Your task to perform on an android device: Show me popular games on the Play Store Image 0: 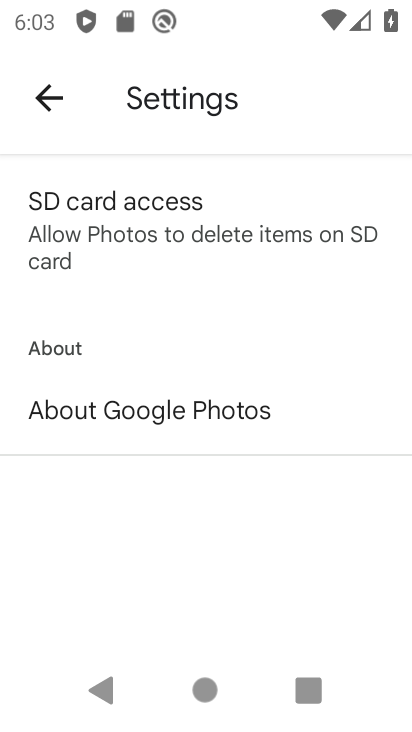
Step 0: press home button
Your task to perform on an android device: Show me popular games on the Play Store Image 1: 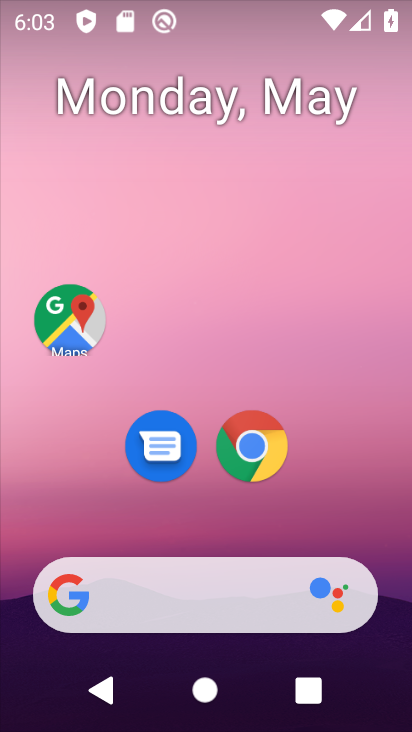
Step 1: drag from (348, 517) to (212, 120)
Your task to perform on an android device: Show me popular games on the Play Store Image 2: 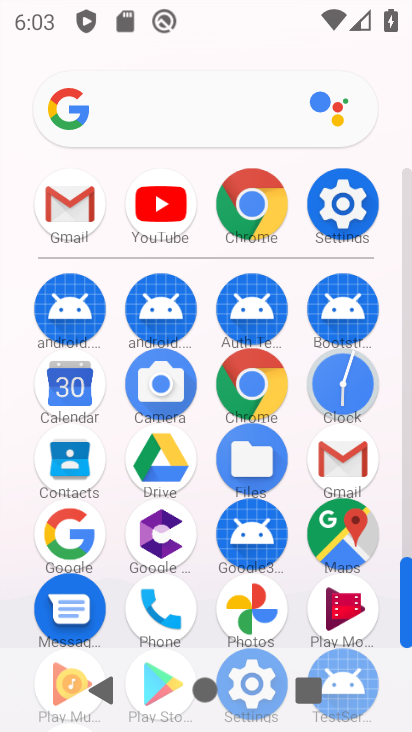
Step 2: drag from (193, 541) to (121, 144)
Your task to perform on an android device: Show me popular games on the Play Store Image 3: 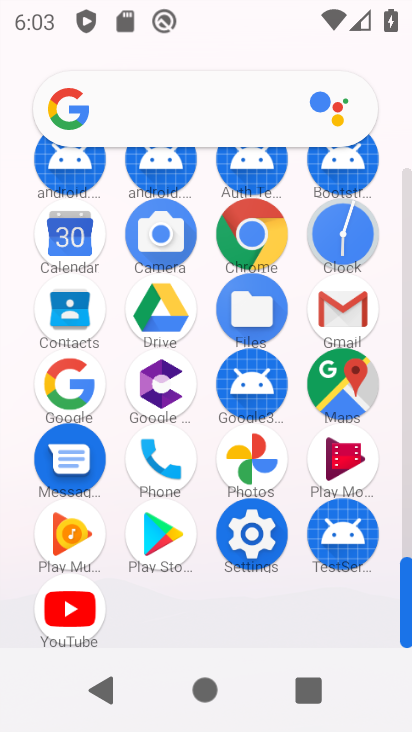
Step 3: click (149, 526)
Your task to perform on an android device: Show me popular games on the Play Store Image 4: 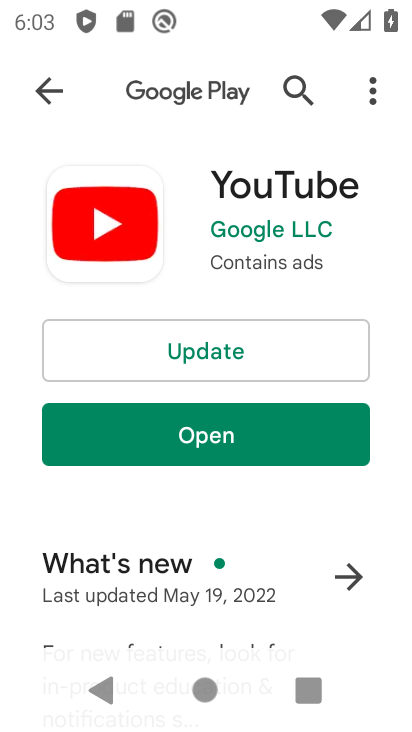
Step 4: click (46, 80)
Your task to perform on an android device: Show me popular games on the Play Store Image 5: 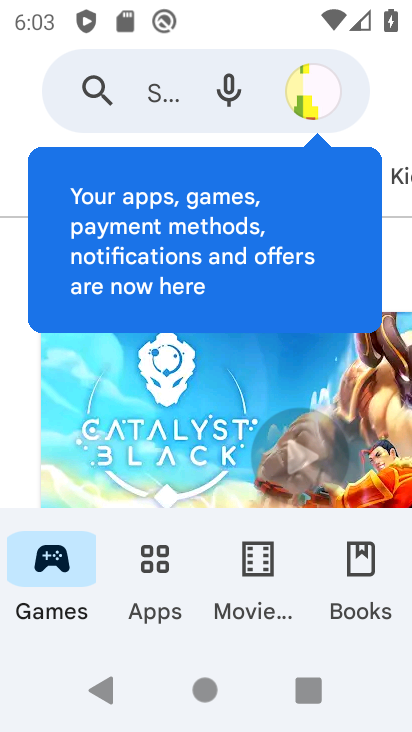
Step 5: click (247, 438)
Your task to perform on an android device: Show me popular games on the Play Store Image 6: 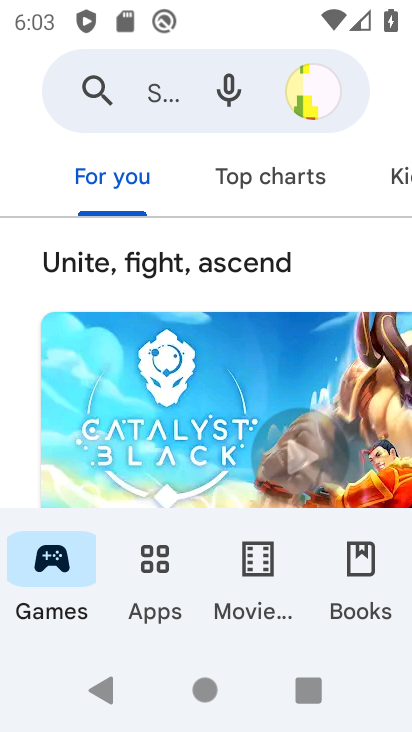
Step 6: task complete